Your task to perform on an android device: Open Yahoo.com Image 0: 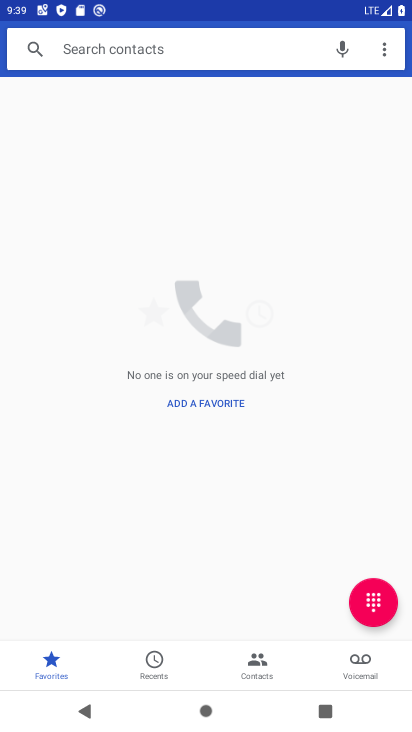
Step 0: press home button
Your task to perform on an android device: Open Yahoo.com Image 1: 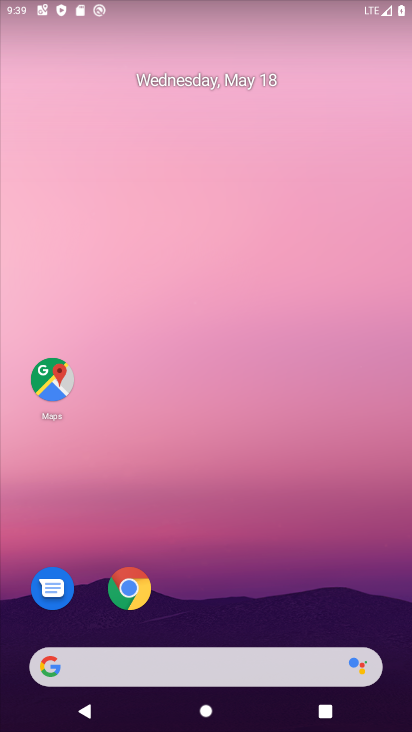
Step 1: click (130, 589)
Your task to perform on an android device: Open Yahoo.com Image 2: 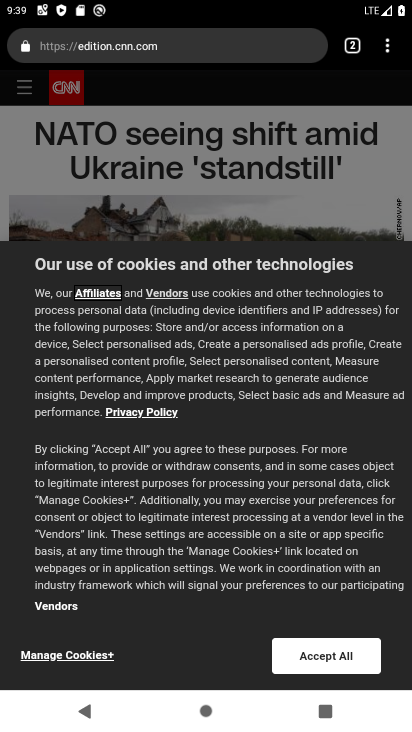
Step 2: click (110, 50)
Your task to perform on an android device: Open Yahoo.com Image 3: 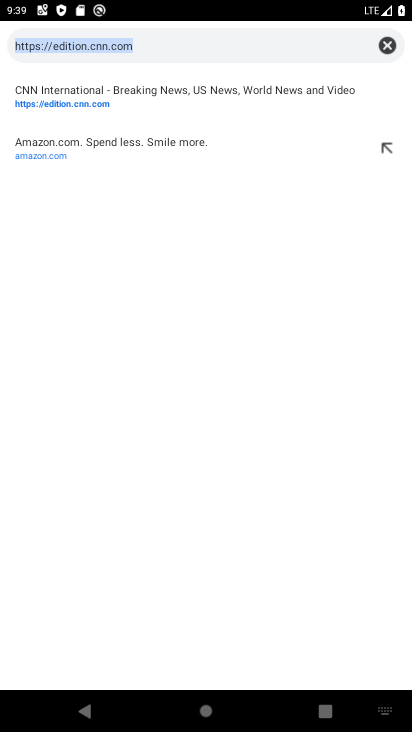
Step 3: click (391, 44)
Your task to perform on an android device: Open Yahoo.com Image 4: 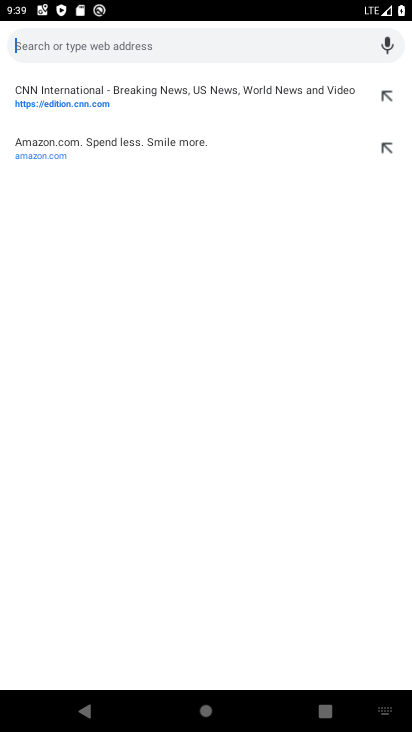
Step 4: type "yahoo.com"
Your task to perform on an android device: Open Yahoo.com Image 5: 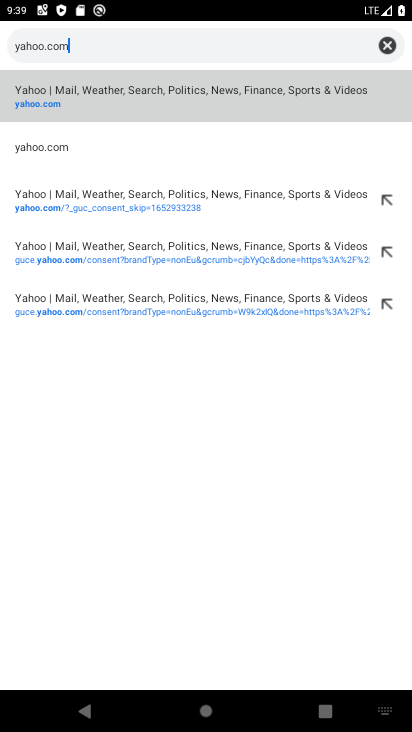
Step 5: click (37, 103)
Your task to perform on an android device: Open Yahoo.com Image 6: 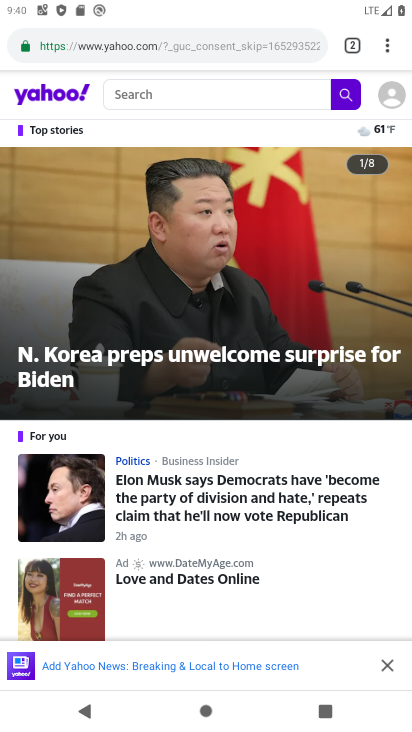
Step 6: task complete